Your task to perform on an android device: Open the calendar and show me this week's events? Image 0: 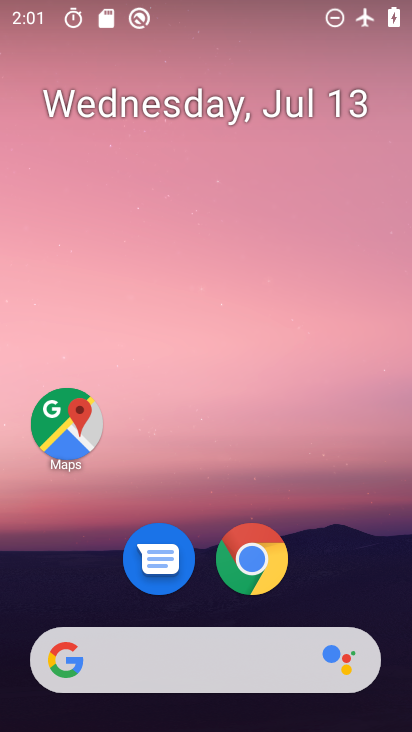
Step 0: drag from (212, 598) to (280, 216)
Your task to perform on an android device: Open the calendar and show me this week's events? Image 1: 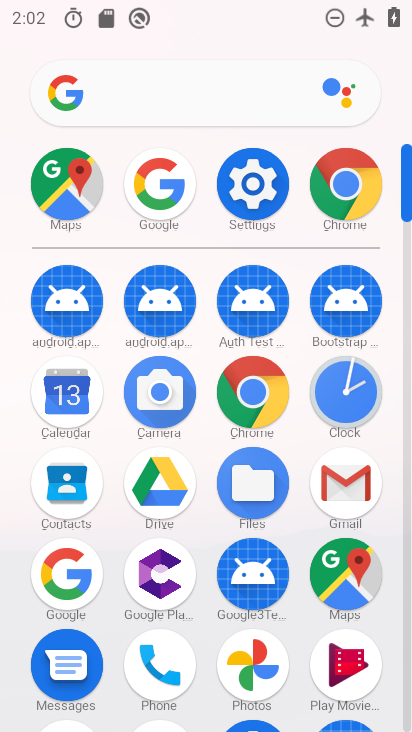
Step 1: click (74, 414)
Your task to perform on an android device: Open the calendar and show me this week's events? Image 2: 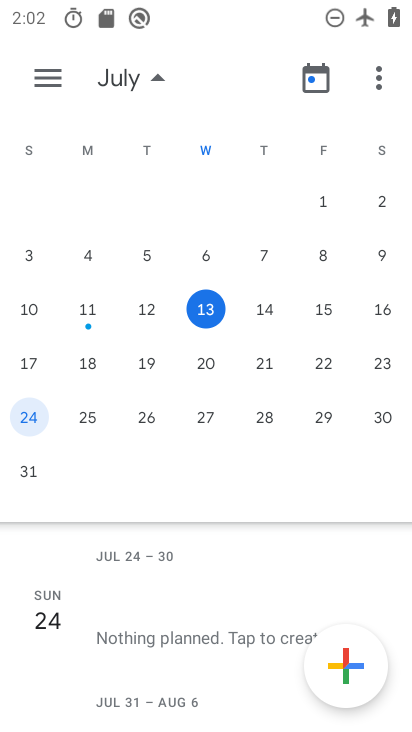
Step 2: click (212, 306)
Your task to perform on an android device: Open the calendar and show me this week's events? Image 3: 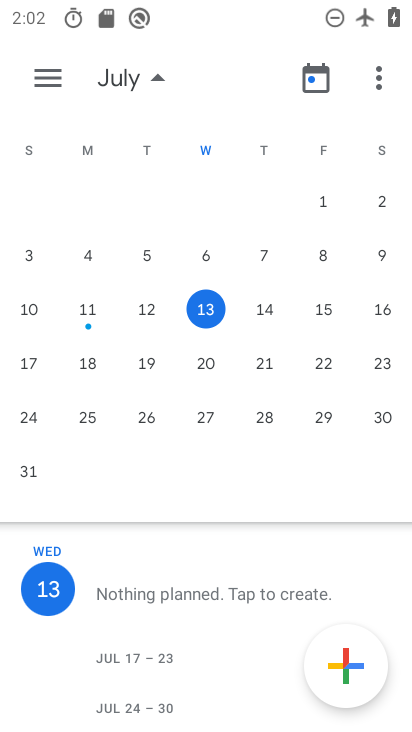
Step 3: click (211, 311)
Your task to perform on an android device: Open the calendar and show me this week's events? Image 4: 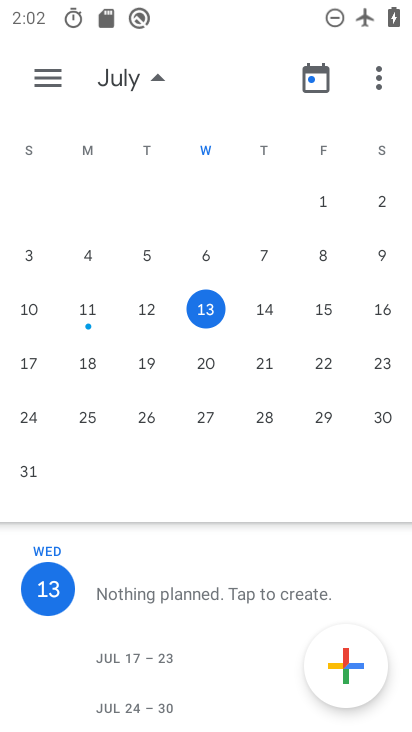
Step 4: task complete